Your task to perform on an android device: Open the map Image 0: 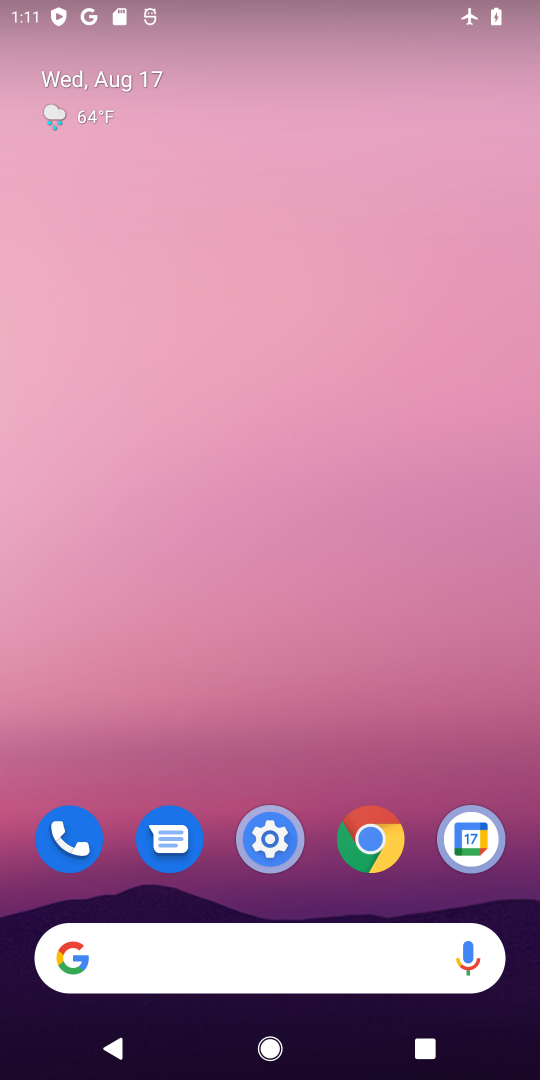
Step 0: drag from (250, 969) to (177, 303)
Your task to perform on an android device: Open the map Image 1: 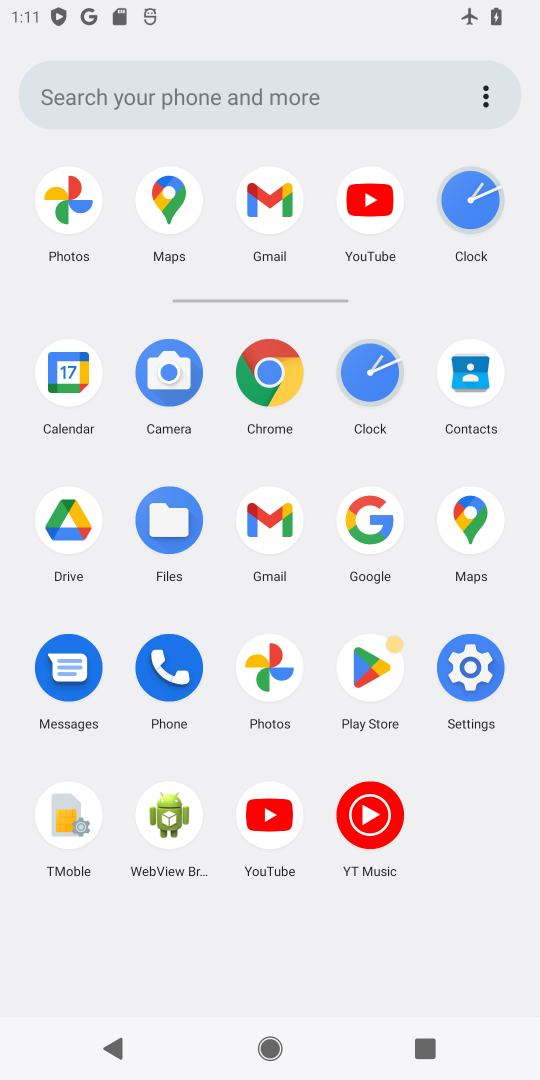
Step 1: click (167, 194)
Your task to perform on an android device: Open the map Image 2: 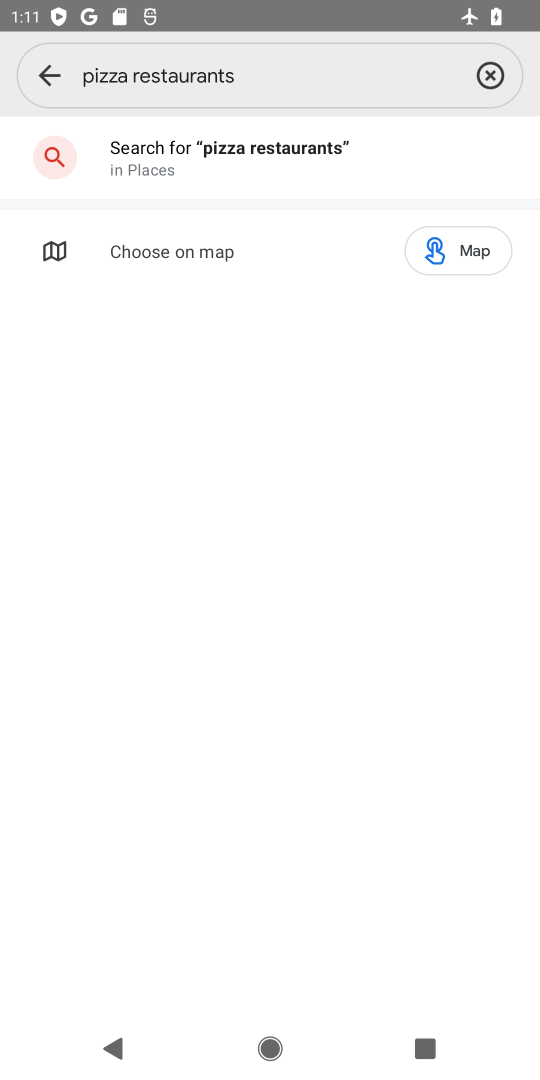
Step 2: task complete